Your task to perform on an android device: turn notification dots off Image 0: 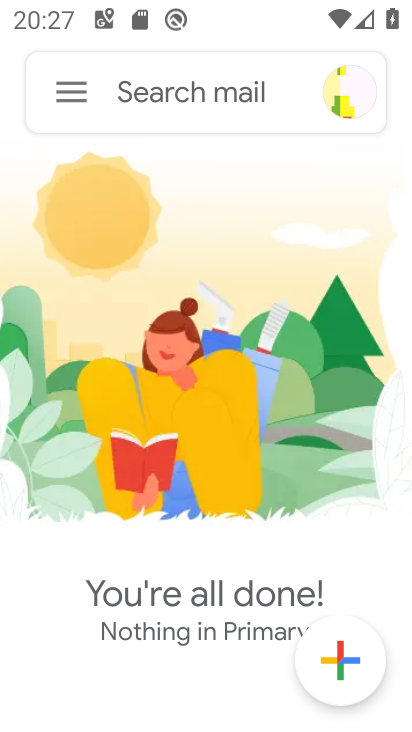
Step 0: press home button
Your task to perform on an android device: turn notification dots off Image 1: 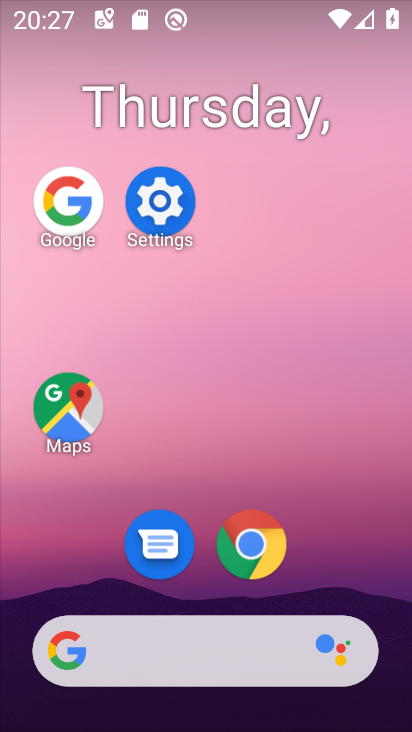
Step 1: drag from (185, 685) to (235, 217)
Your task to perform on an android device: turn notification dots off Image 2: 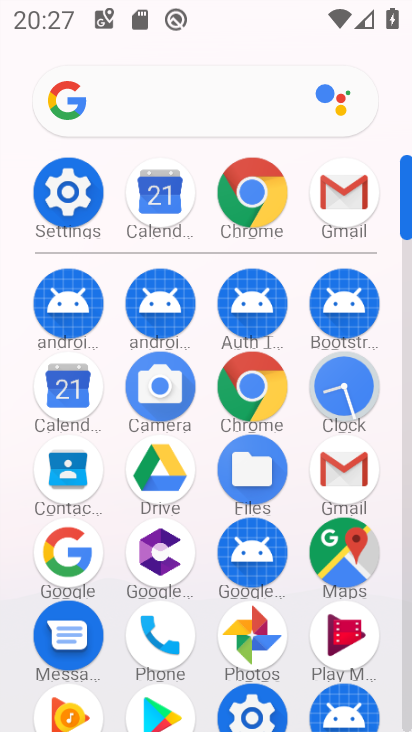
Step 2: click (88, 212)
Your task to perform on an android device: turn notification dots off Image 3: 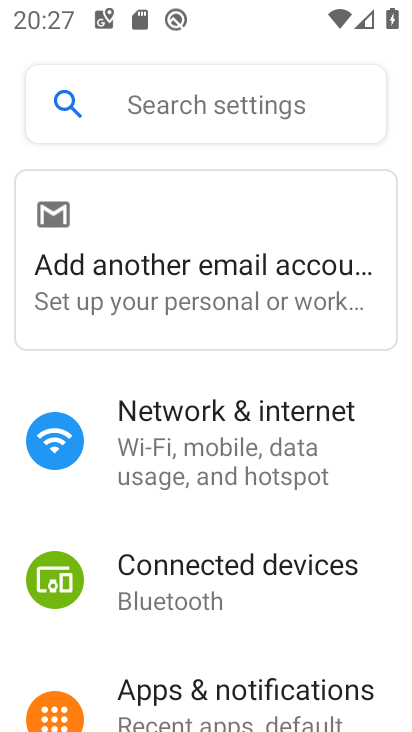
Step 3: click (178, 92)
Your task to perform on an android device: turn notification dots off Image 4: 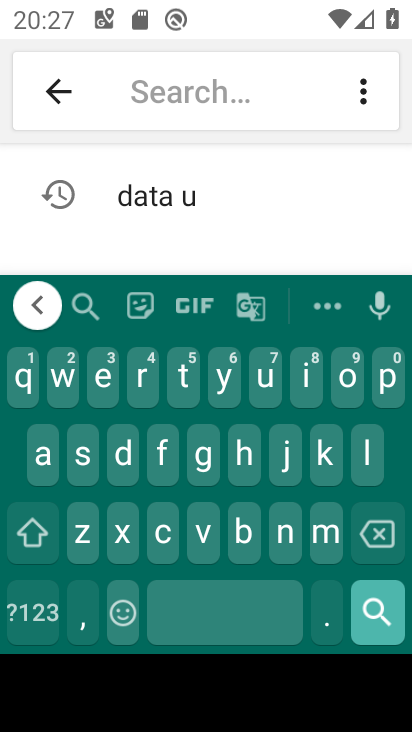
Step 4: click (130, 463)
Your task to perform on an android device: turn notification dots off Image 5: 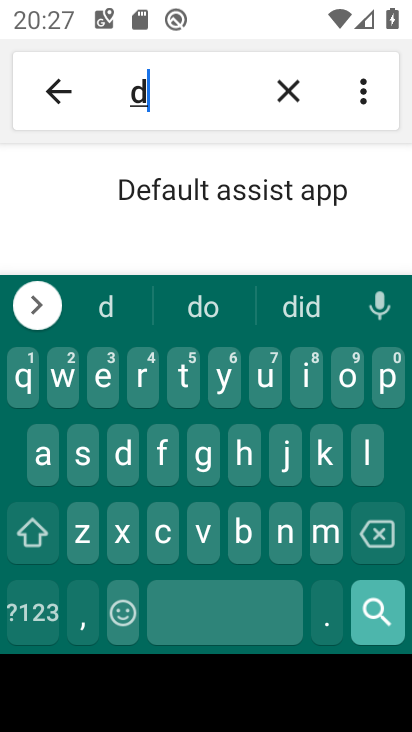
Step 5: click (344, 396)
Your task to perform on an android device: turn notification dots off Image 6: 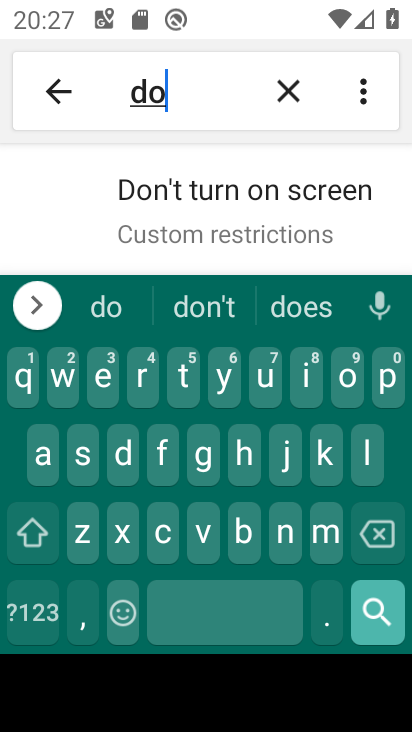
Step 6: click (184, 379)
Your task to perform on an android device: turn notification dots off Image 7: 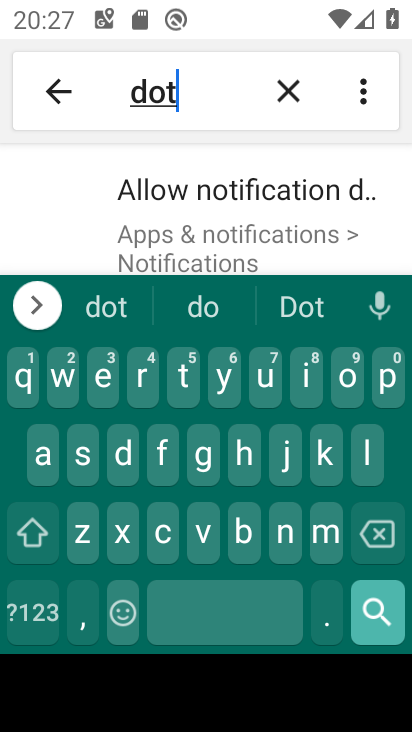
Step 7: click (249, 189)
Your task to perform on an android device: turn notification dots off Image 8: 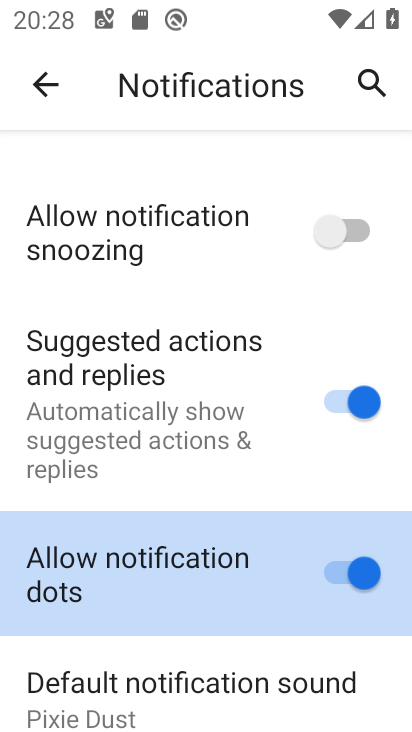
Step 8: click (174, 573)
Your task to perform on an android device: turn notification dots off Image 9: 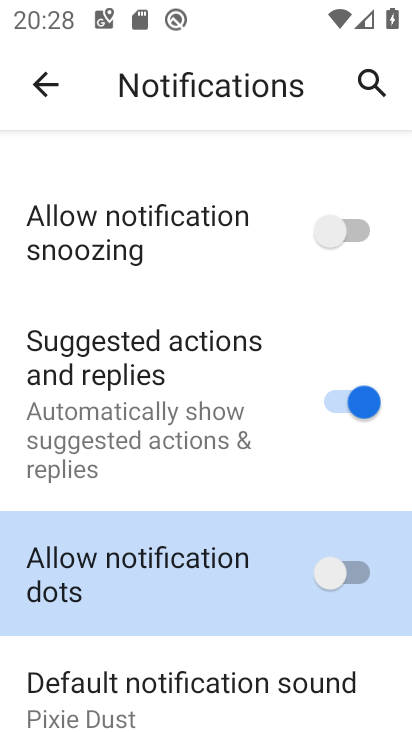
Step 9: task complete